Your task to perform on an android device: Clear all items from cart on amazon.com. Search for logitech g pro on amazon.com, select the first entry, and add it to the cart. Image 0: 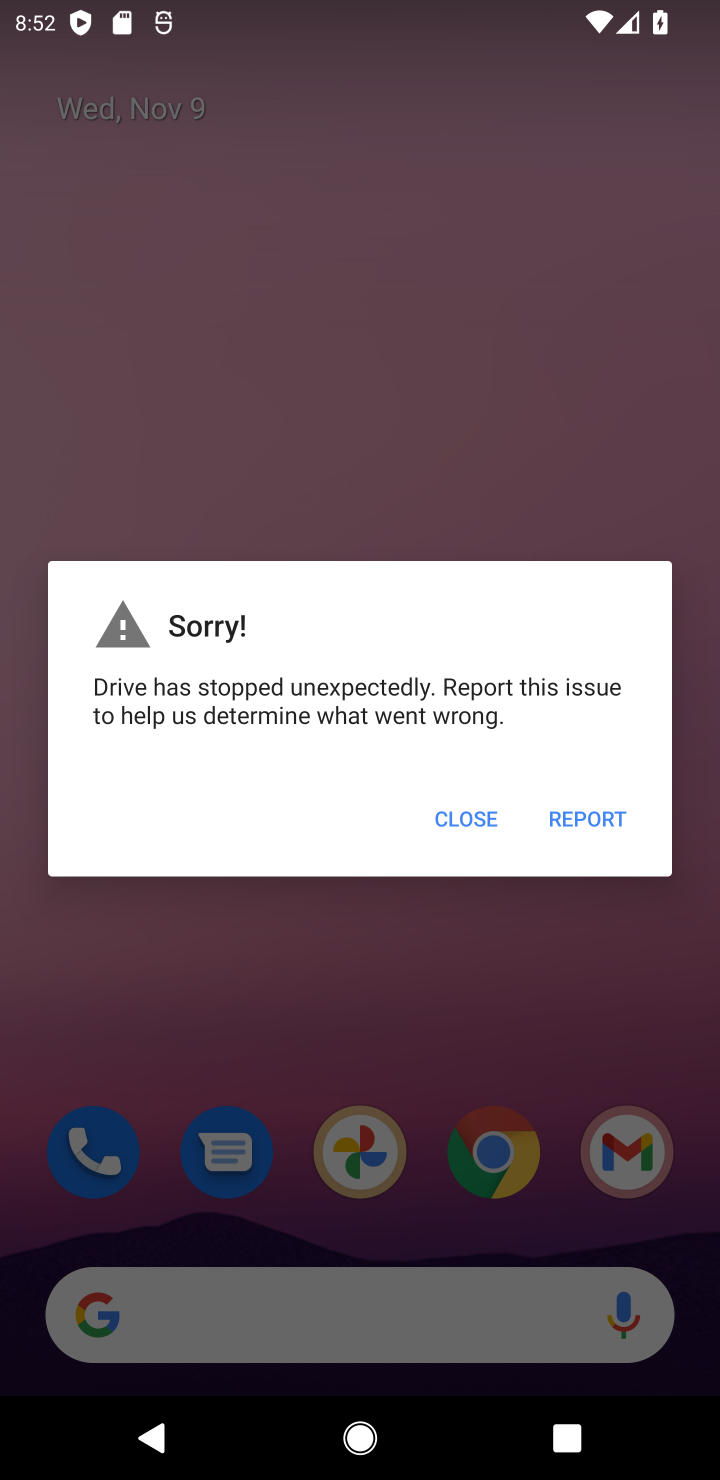
Step 0: press home button
Your task to perform on an android device: Clear all items from cart on amazon.com. Search for logitech g pro on amazon.com, select the first entry, and add it to the cart. Image 1: 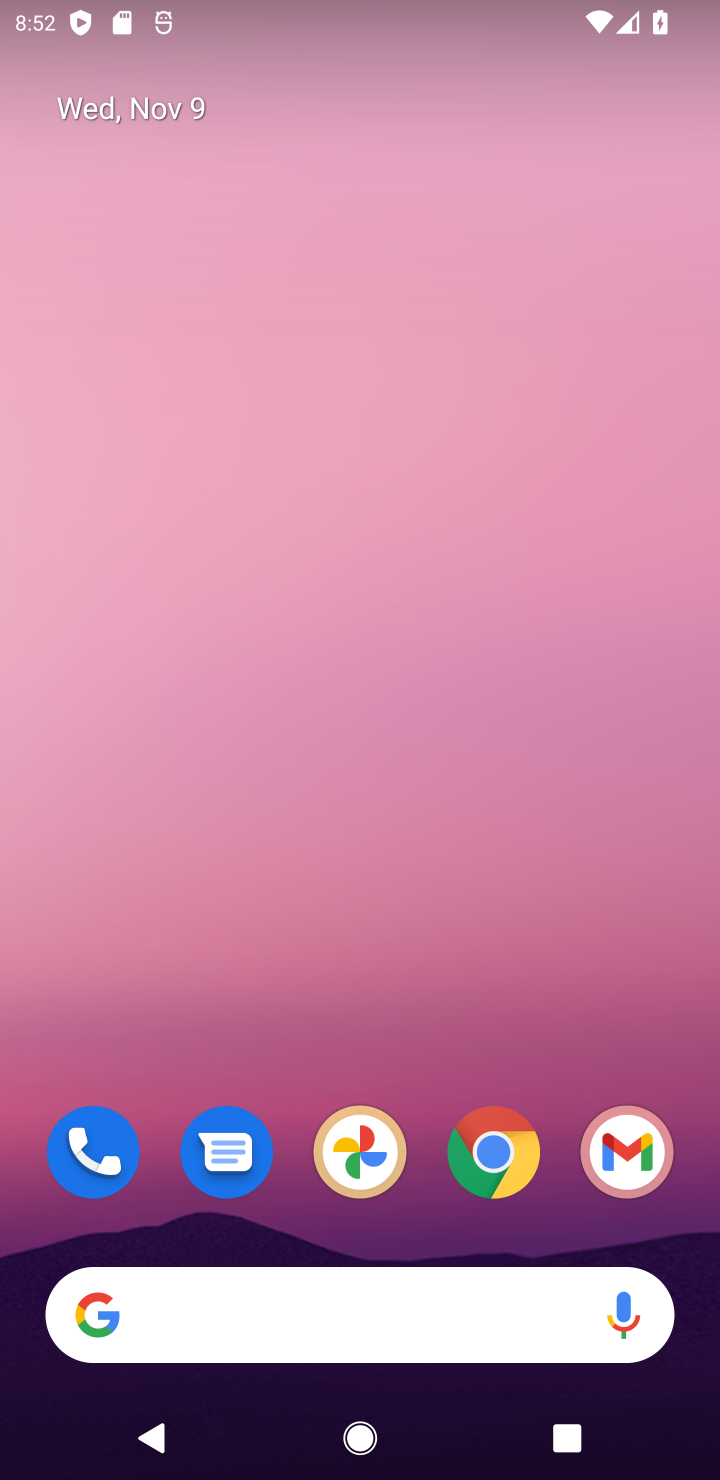
Step 1: click (494, 1149)
Your task to perform on an android device: Clear all items from cart on amazon.com. Search for logitech g pro on amazon.com, select the first entry, and add it to the cart. Image 2: 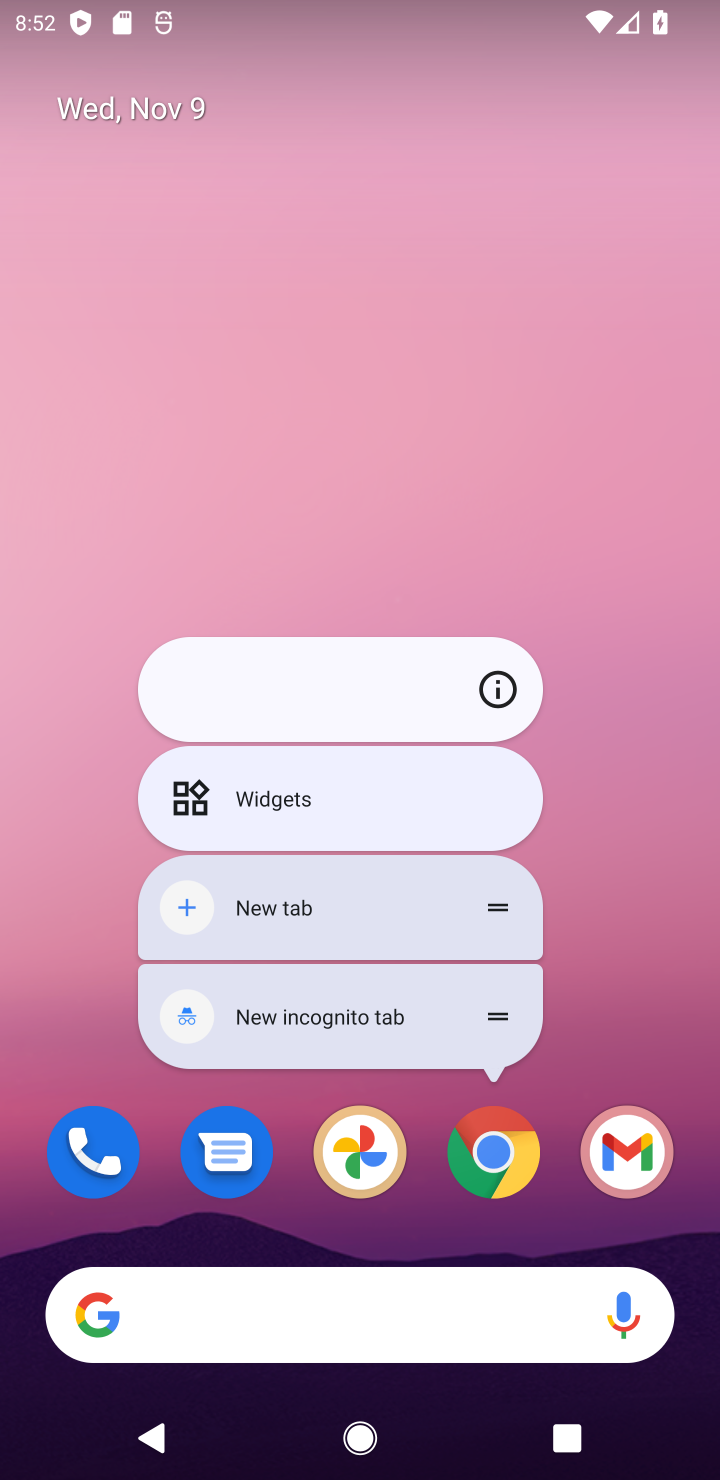
Step 2: click (494, 1156)
Your task to perform on an android device: Clear all items from cart on amazon.com. Search for logitech g pro on amazon.com, select the first entry, and add it to the cart. Image 3: 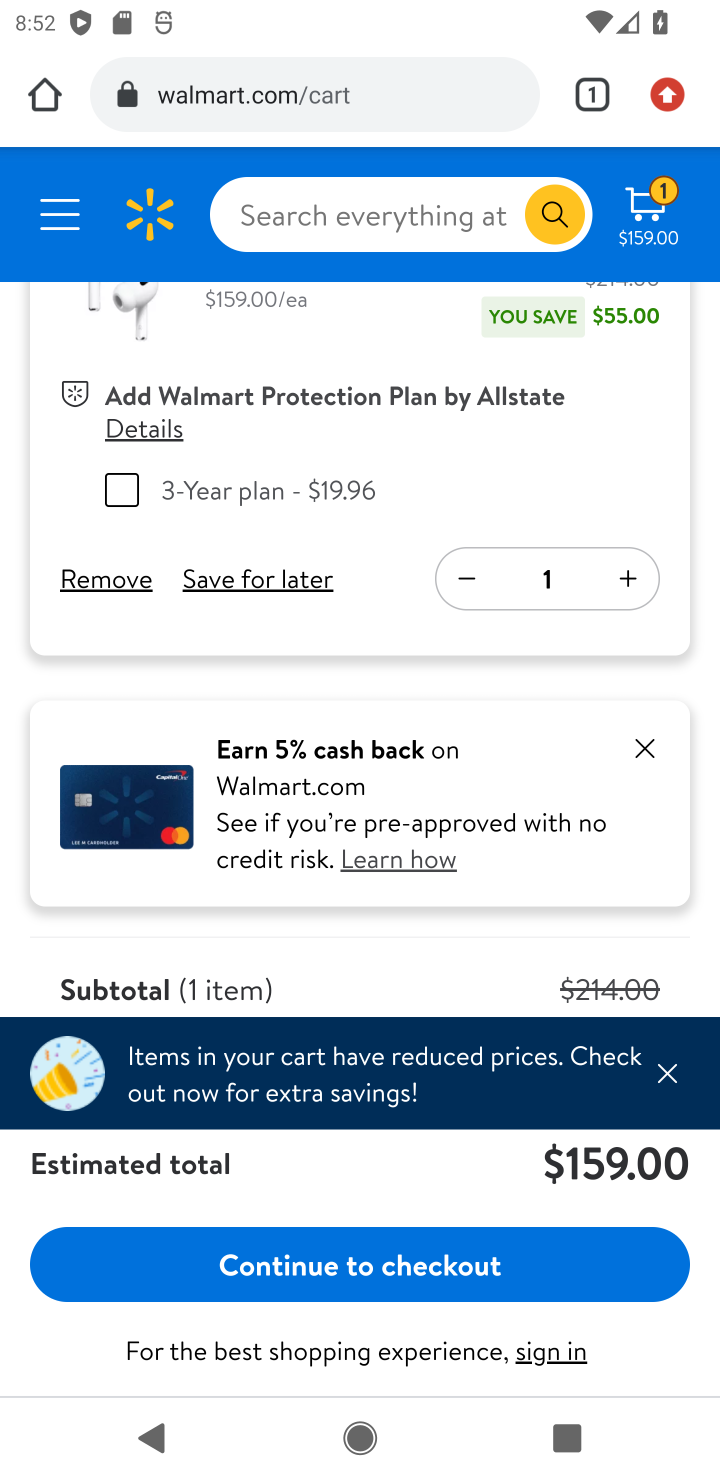
Step 3: click (224, 81)
Your task to perform on an android device: Clear all items from cart on amazon.com. Search for logitech g pro on amazon.com, select the first entry, and add it to the cart. Image 4: 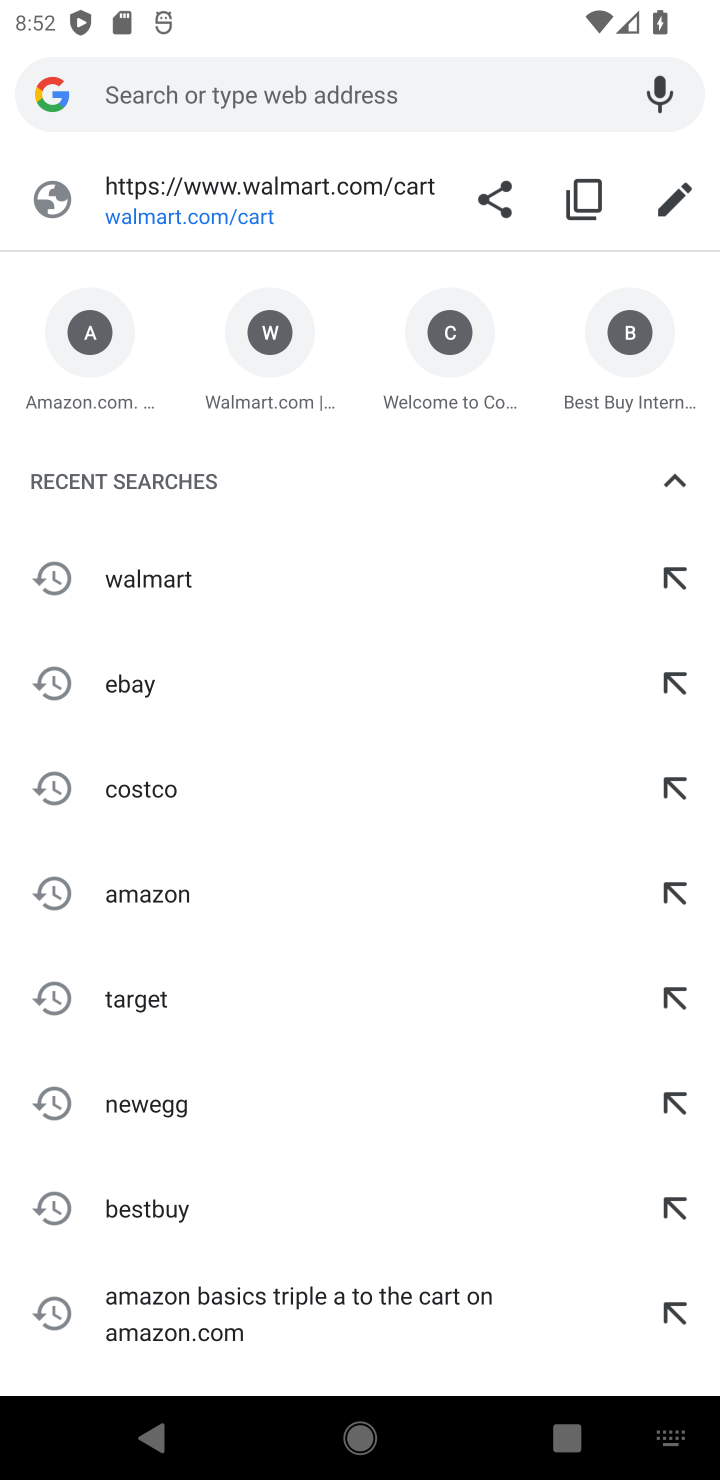
Step 4: click (148, 887)
Your task to perform on an android device: Clear all items from cart on amazon.com. Search for logitech g pro on amazon.com, select the first entry, and add it to the cart. Image 5: 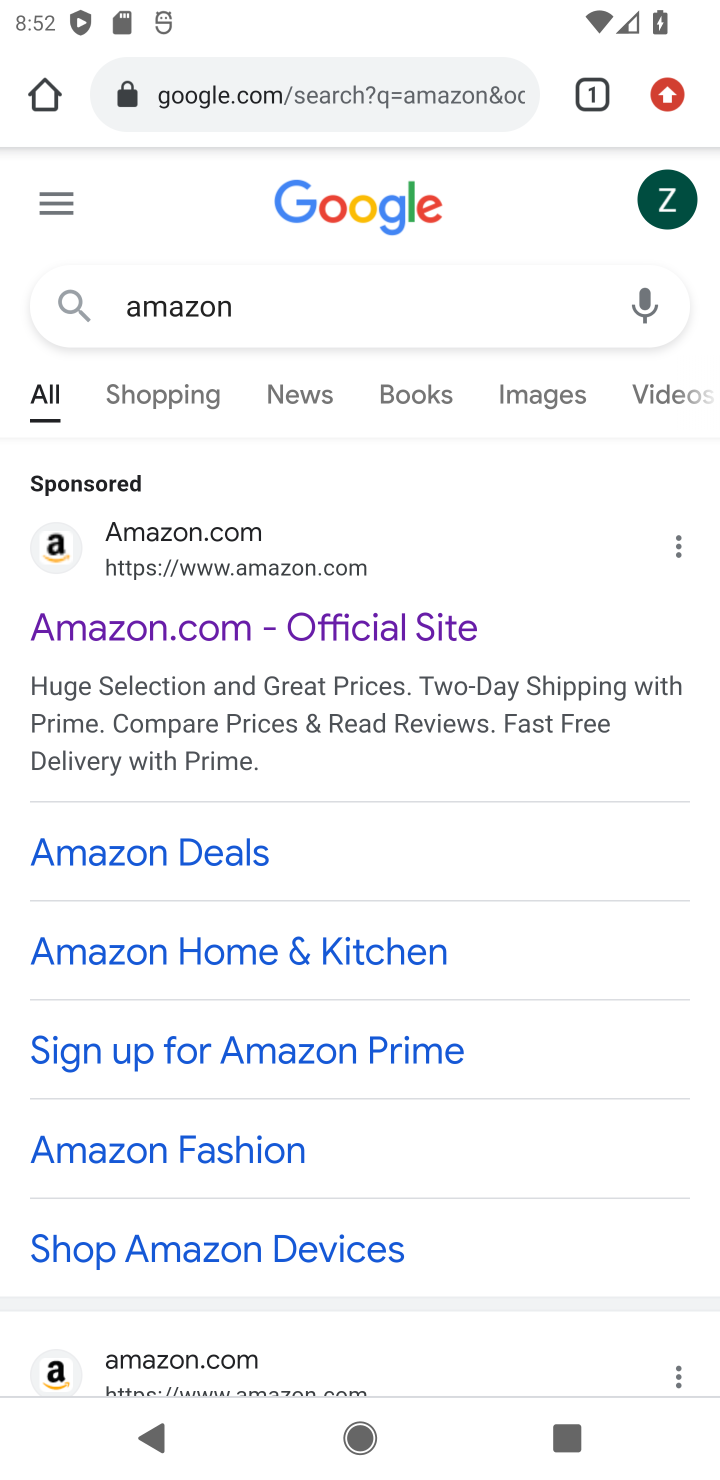
Step 5: click (355, 615)
Your task to perform on an android device: Clear all items from cart on amazon.com. Search for logitech g pro on amazon.com, select the first entry, and add it to the cart. Image 6: 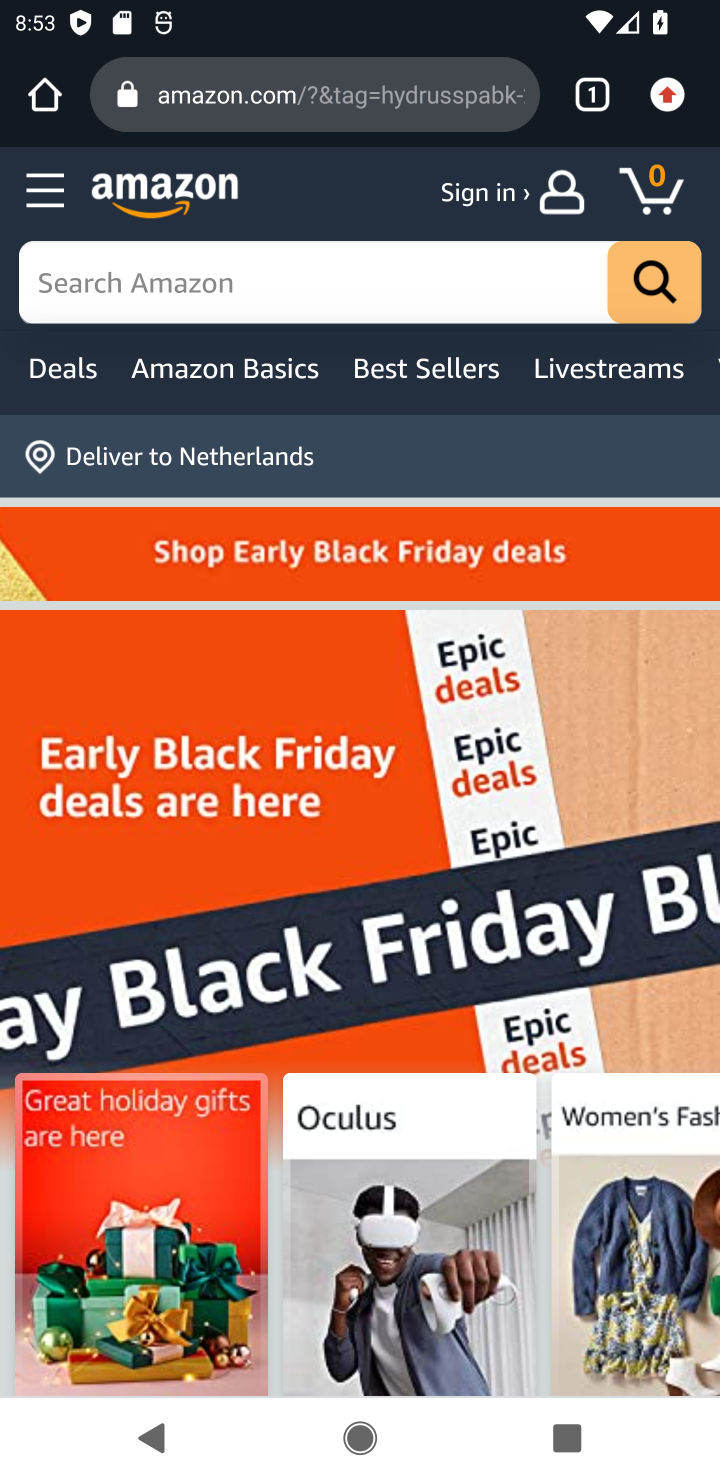
Step 6: click (86, 265)
Your task to perform on an android device: Clear all items from cart on amazon.com. Search for logitech g pro on amazon.com, select the first entry, and add it to the cart. Image 7: 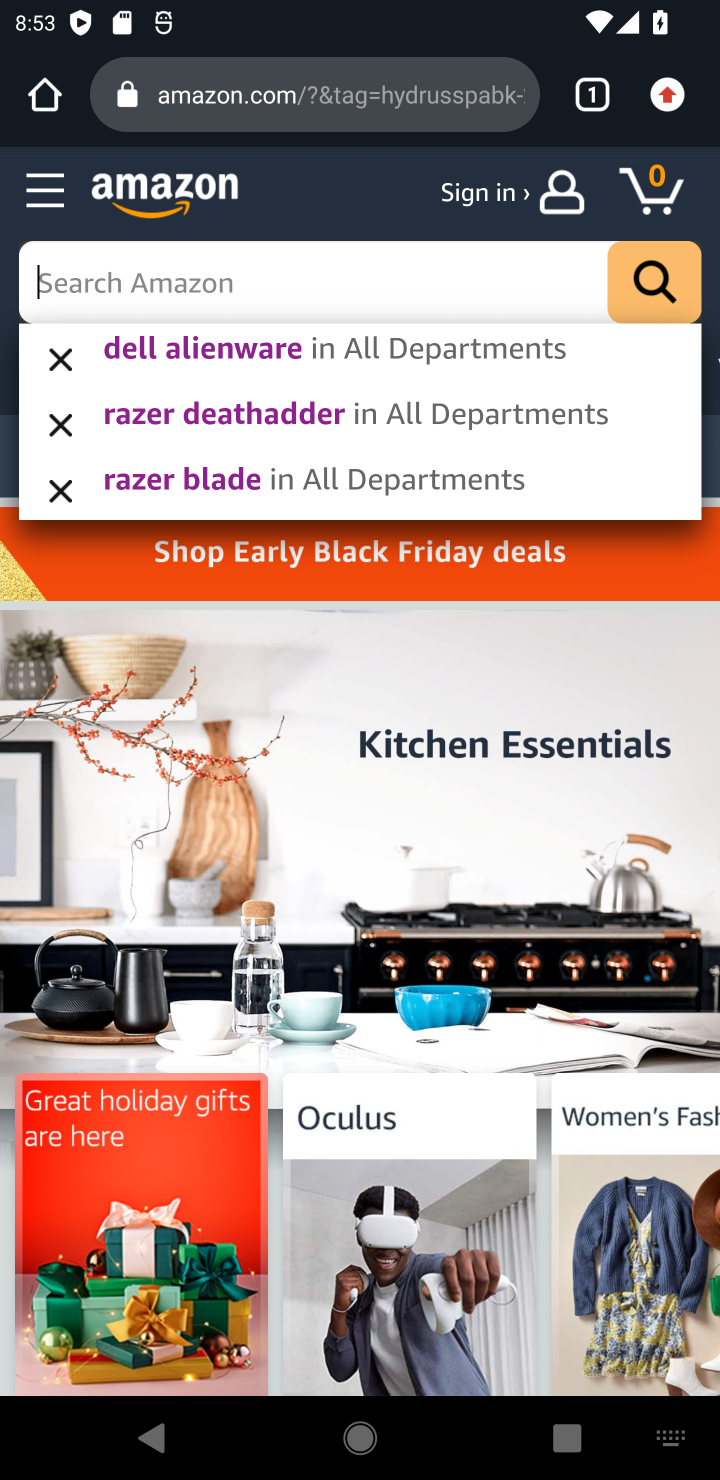
Step 7: type "logitech g pro"
Your task to perform on an android device: Clear all items from cart on amazon.com. Search for logitech g pro on amazon.com, select the first entry, and add it to the cart. Image 8: 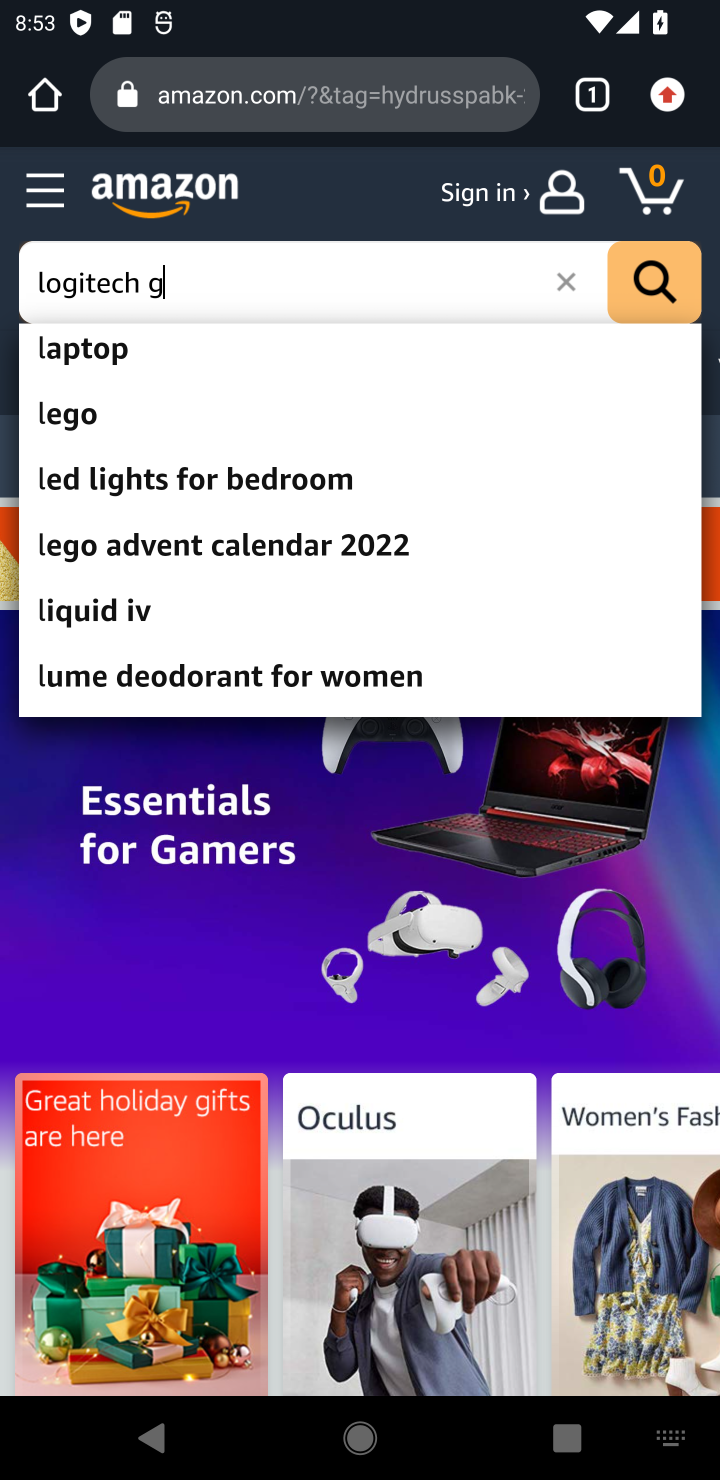
Step 8: press enter
Your task to perform on an android device: Clear all items from cart on amazon.com. Search for logitech g pro on amazon.com, select the first entry, and add it to the cart. Image 9: 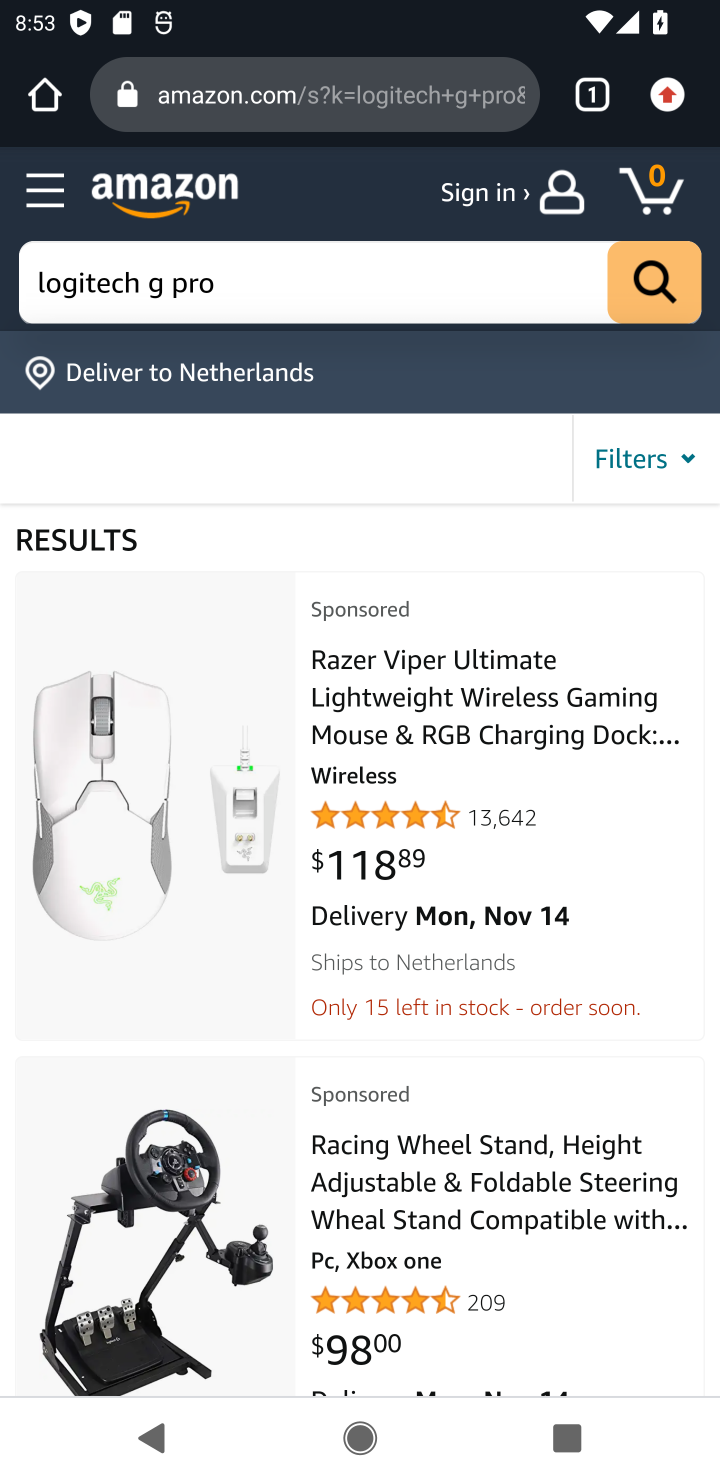
Step 9: task complete